Your task to perform on an android device: Open Reddit.com Image 0: 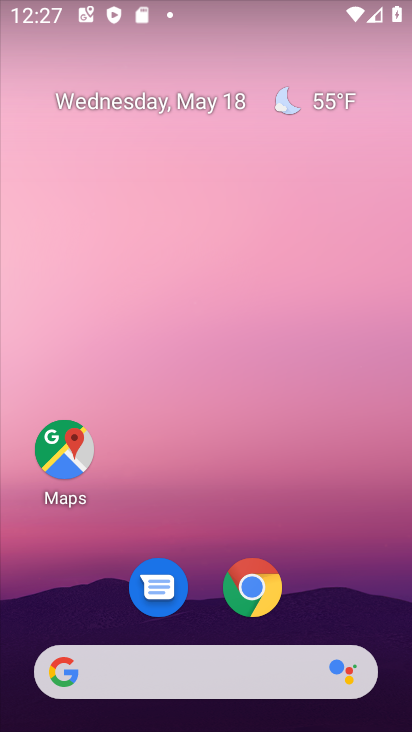
Step 0: click (251, 588)
Your task to perform on an android device: Open Reddit.com Image 1: 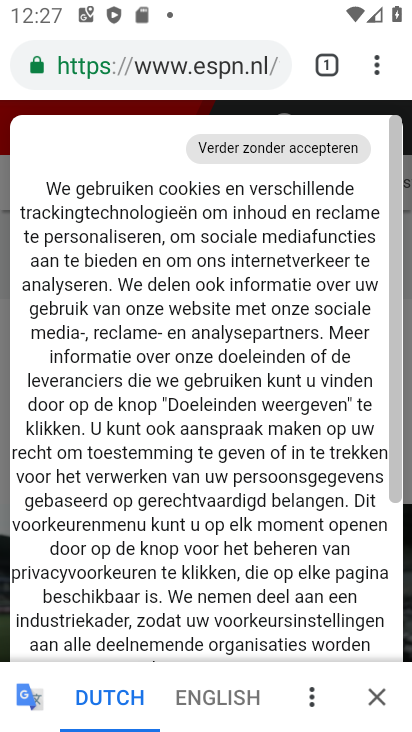
Step 1: click (225, 65)
Your task to perform on an android device: Open Reddit.com Image 2: 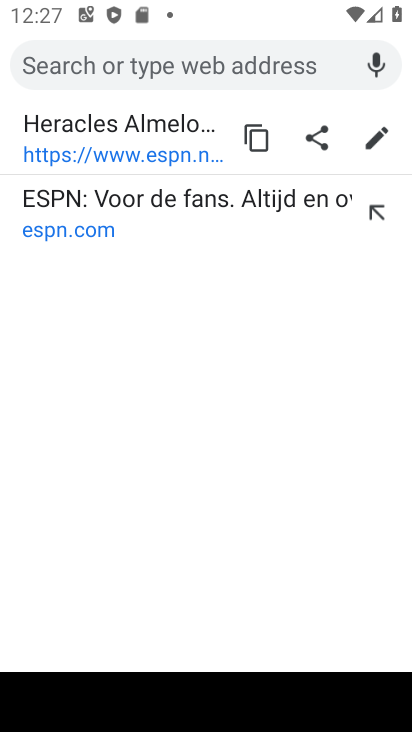
Step 2: type "www.reddit.com"
Your task to perform on an android device: Open Reddit.com Image 3: 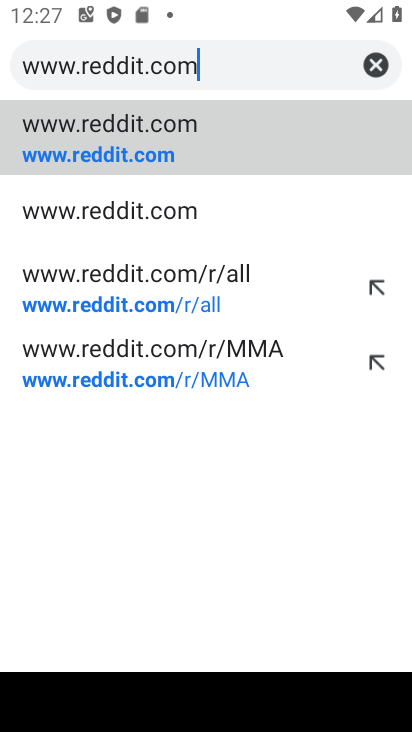
Step 3: click (92, 149)
Your task to perform on an android device: Open Reddit.com Image 4: 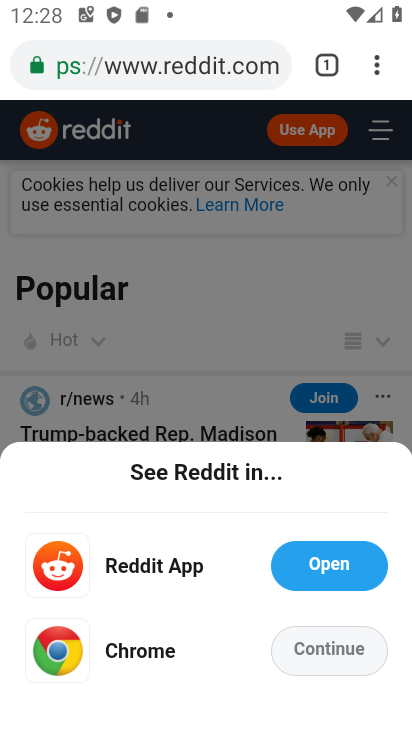
Step 4: task complete